Your task to perform on an android device: open wifi settings Image 0: 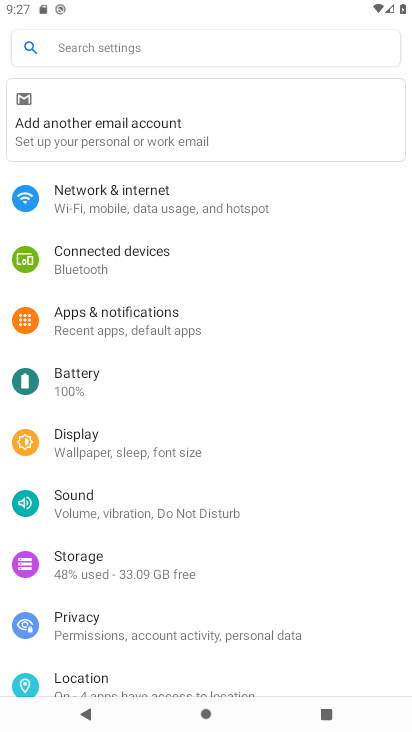
Step 0: press home button
Your task to perform on an android device: open wifi settings Image 1: 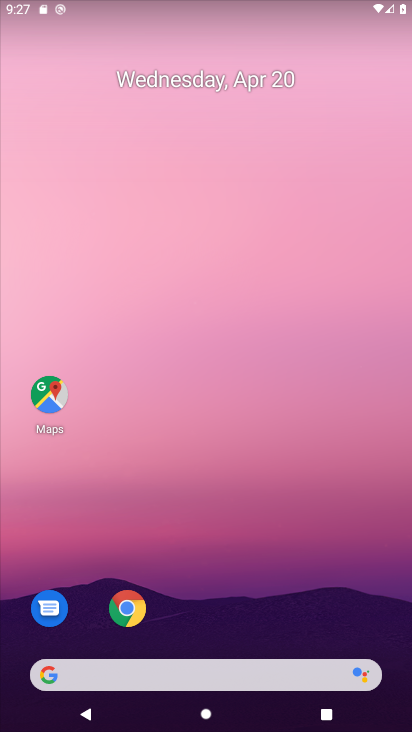
Step 1: drag from (209, 614) to (214, 231)
Your task to perform on an android device: open wifi settings Image 2: 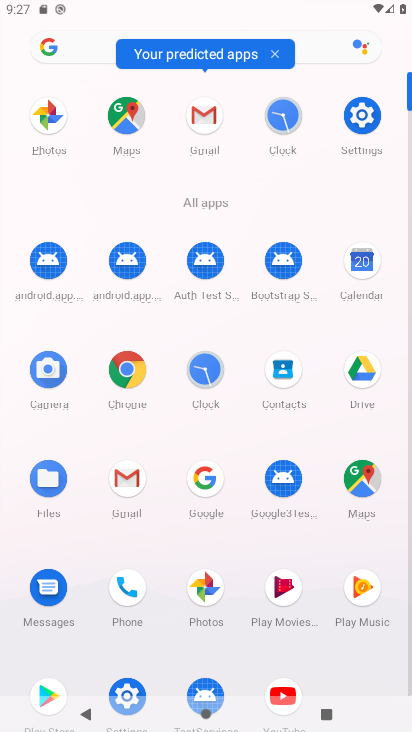
Step 2: click (362, 116)
Your task to perform on an android device: open wifi settings Image 3: 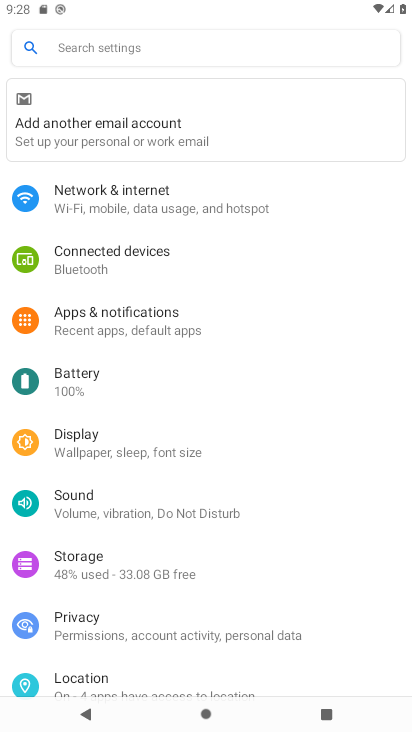
Step 3: click (150, 190)
Your task to perform on an android device: open wifi settings Image 4: 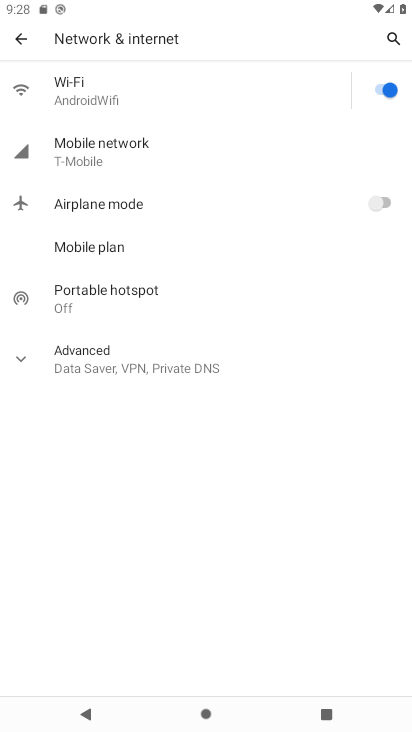
Step 4: click (95, 88)
Your task to perform on an android device: open wifi settings Image 5: 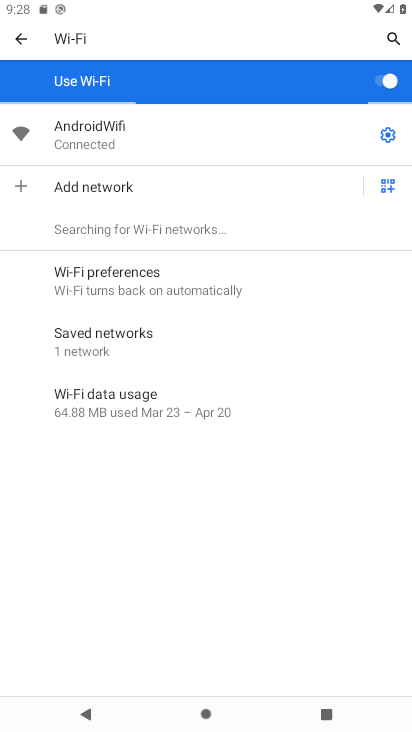
Step 5: task complete